Your task to perform on an android device: check the backup settings in the google photos Image 0: 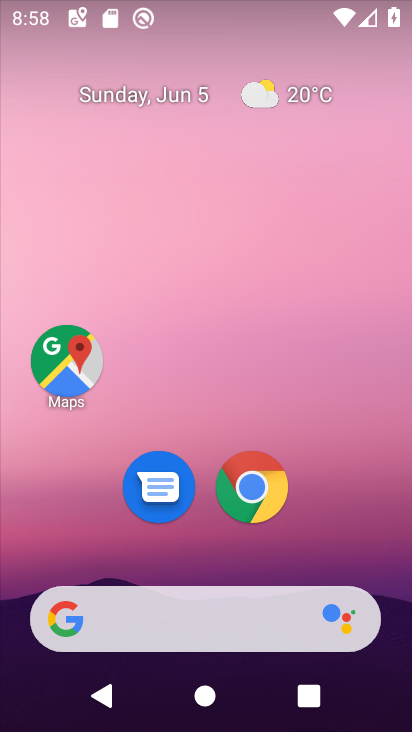
Step 0: drag from (305, 563) to (320, 221)
Your task to perform on an android device: check the backup settings in the google photos Image 1: 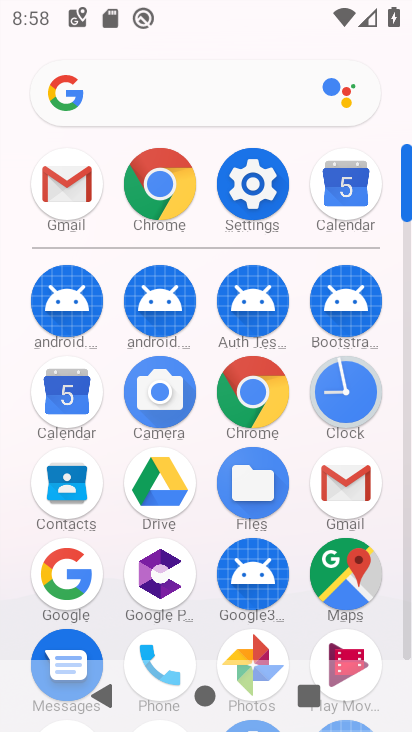
Step 1: click (257, 646)
Your task to perform on an android device: check the backup settings in the google photos Image 2: 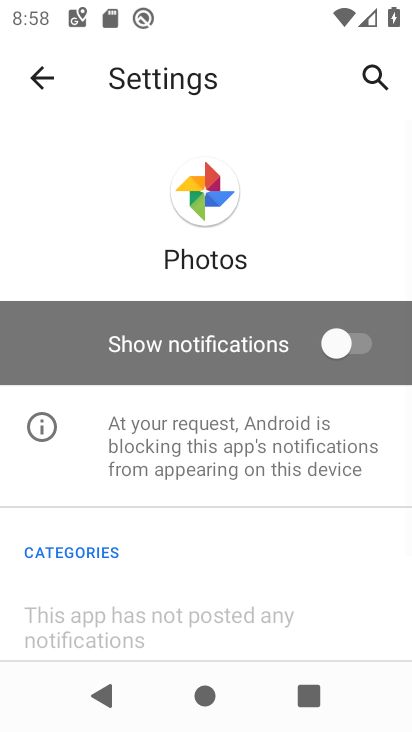
Step 2: click (31, 80)
Your task to perform on an android device: check the backup settings in the google photos Image 3: 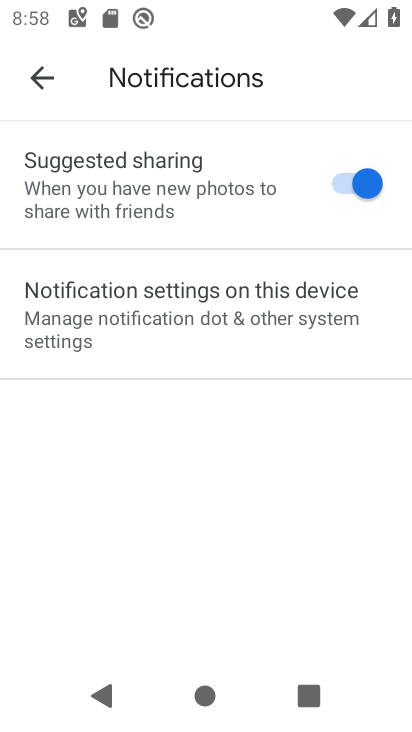
Step 3: click (40, 75)
Your task to perform on an android device: check the backup settings in the google photos Image 4: 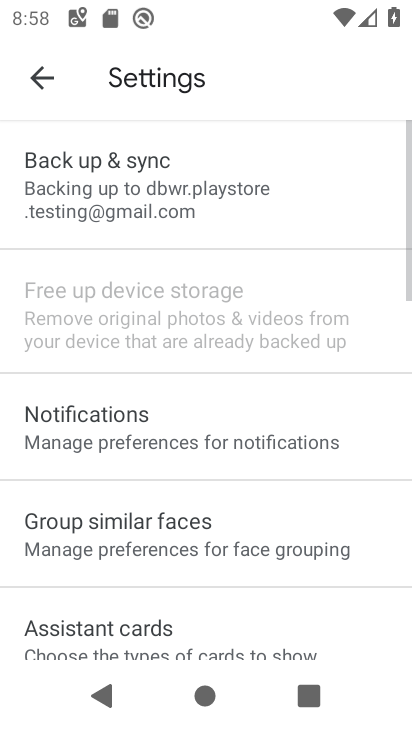
Step 4: click (117, 183)
Your task to perform on an android device: check the backup settings in the google photos Image 5: 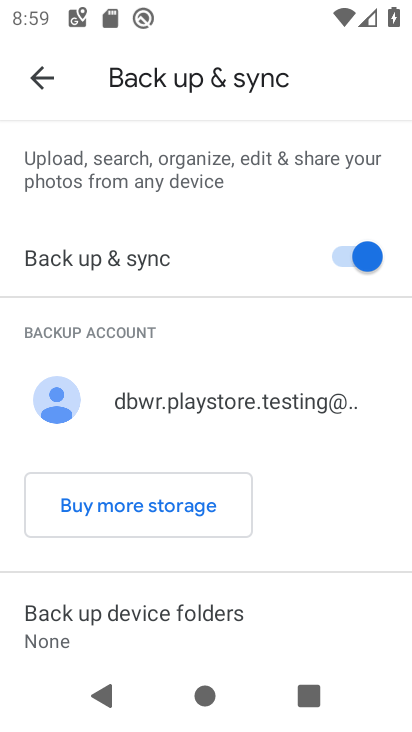
Step 5: task complete